Your task to perform on an android device: Open settings on Google Maps Image 0: 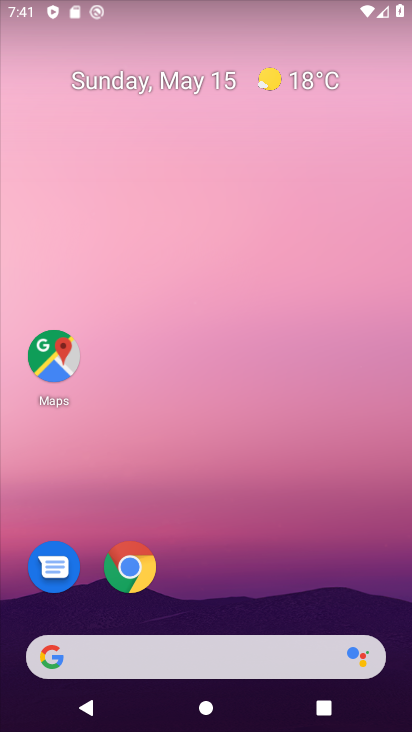
Step 0: click (44, 359)
Your task to perform on an android device: Open settings on Google Maps Image 1: 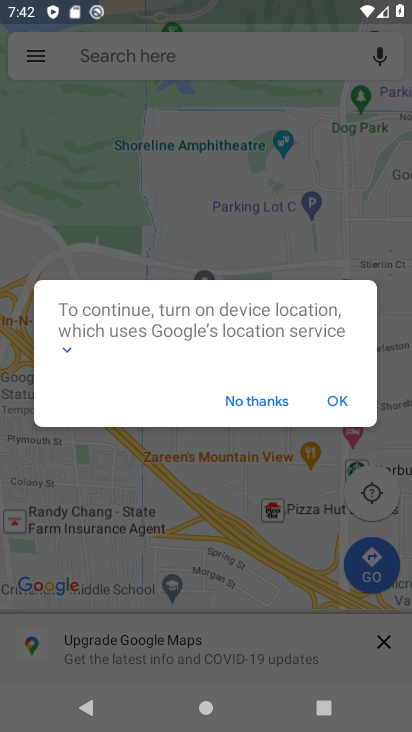
Step 1: click (246, 404)
Your task to perform on an android device: Open settings on Google Maps Image 2: 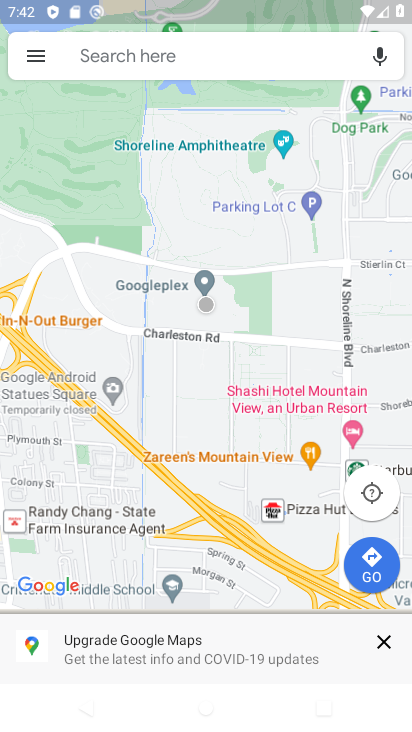
Step 2: click (170, 56)
Your task to perform on an android device: Open settings on Google Maps Image 3: 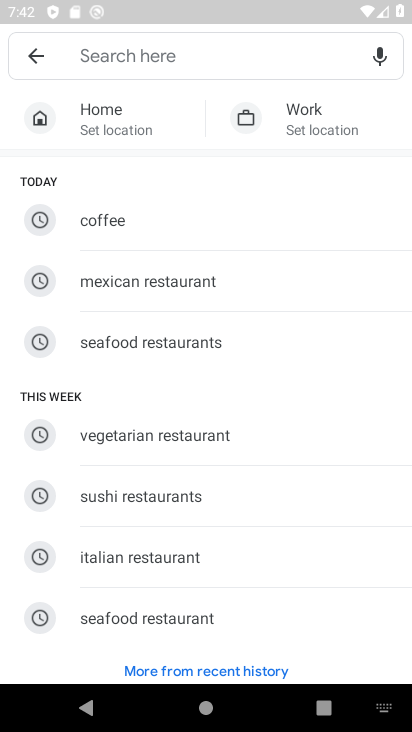
Step 3: click (38, 54)
Your task to perform on an android device: Open settings on Google Maps Image 4: 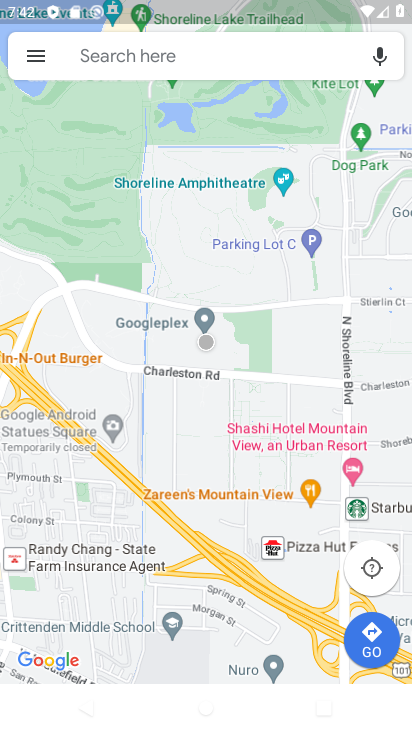
Step 4: click (38, 54)
Your task to perform on an android device: Open settings on Google Maps Image 5: 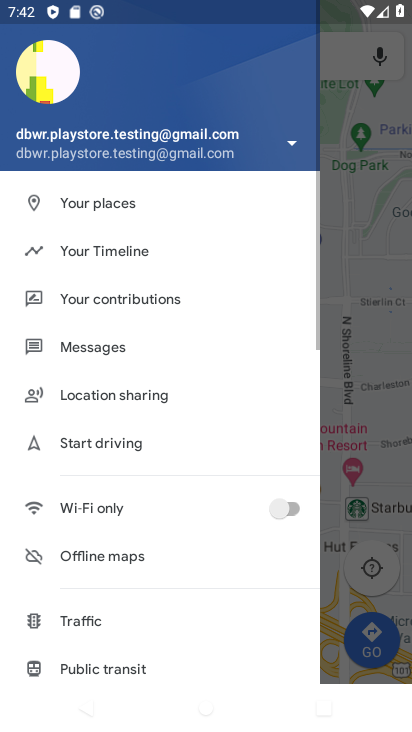
Step 5: drag from (171, 669) to (245, 29)
Your task to perform on an android device: Open settings on Google Maps Image 6: 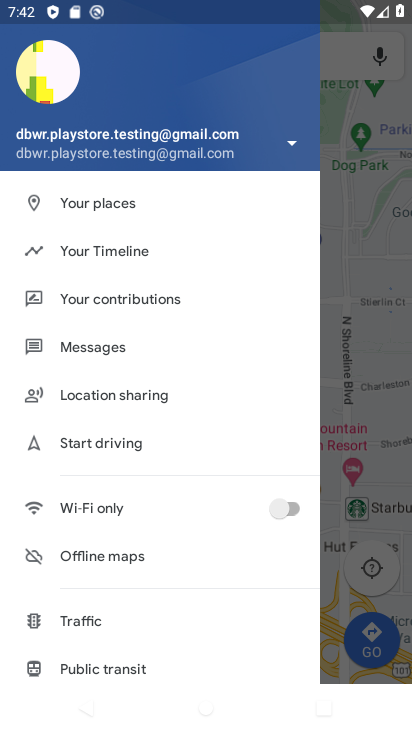
Step 6: drag from (143, 627) to (191, 57)
Your task to perform on an android device: Open settings on Google Maps Image 7: 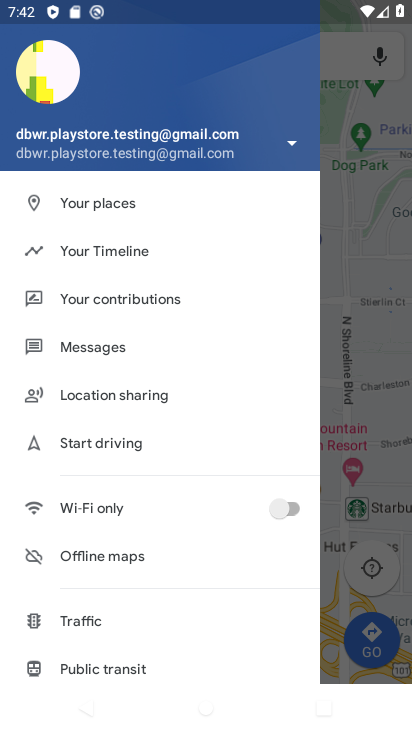
Step 7: drag from (119, 639) to (246, 62)
Your task to perform on an android device: Open settings on Google Maps Image 8: 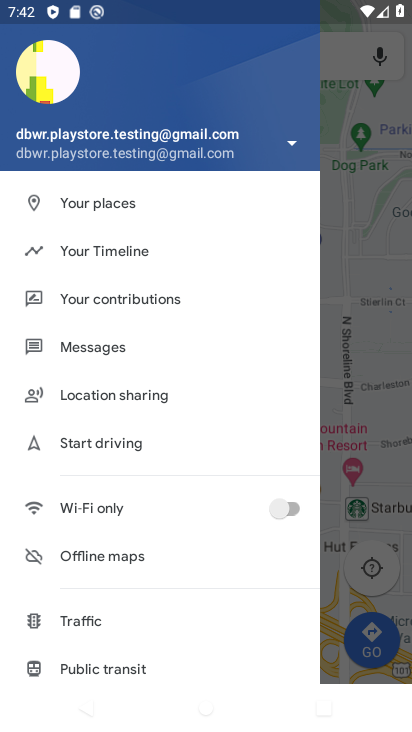
Step 8: drag from (146, 644) to (188, 20)
Your task to perform on an android device: Open settings on Google Maps Image 9: 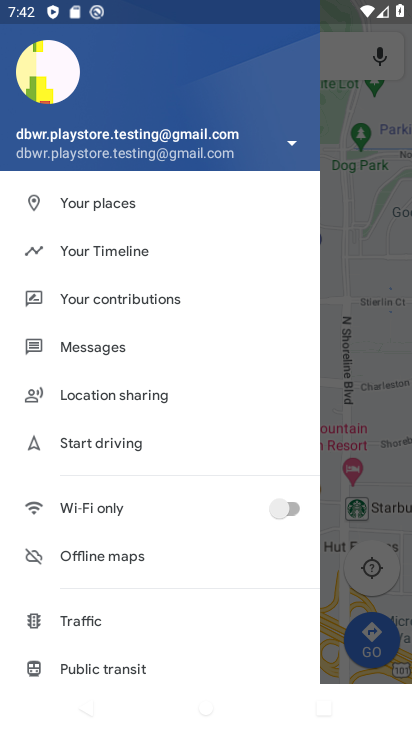
Step 9: drag from (85, 623) to (314, 25)
Your task to perform on an android device: Open settings on Google Maps Image 10: 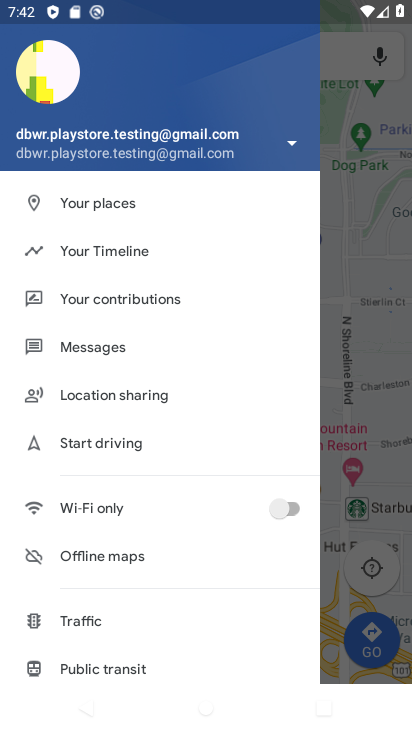
Step 10: drag from (171, 631) to (199, 13)
Your task to perform on an android device: Open settings on Google Maps Image 11: 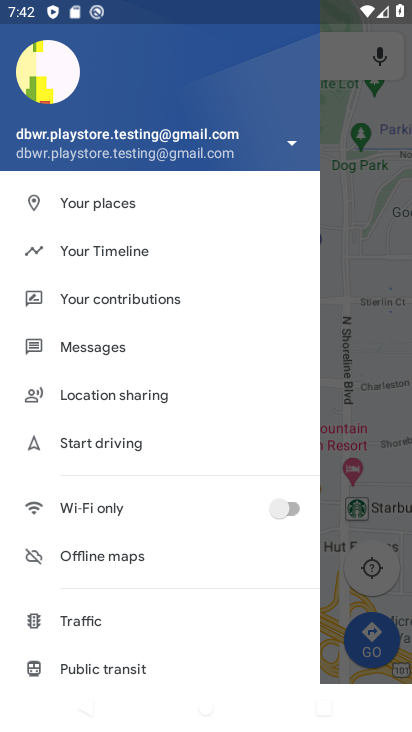
Step 11: drag from (99, 610) to (179, 22)
Your task to perform on an android device: Open settings on Google Maps Image 12: 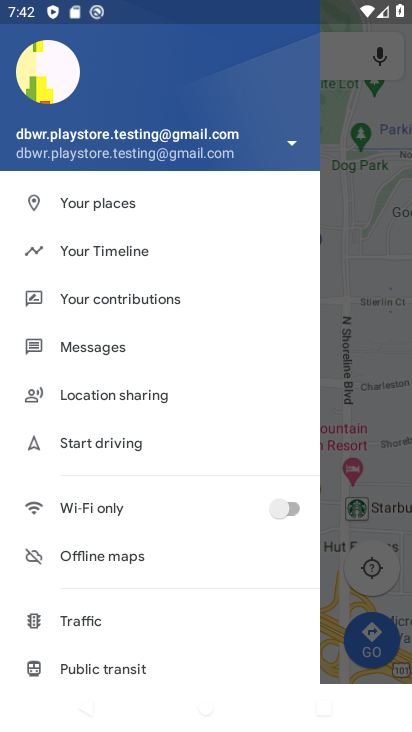
Step 12: drag from (161, 633) to (217, 29)
Your task to perform on an android device: Open settings on Google Maps Image 13: 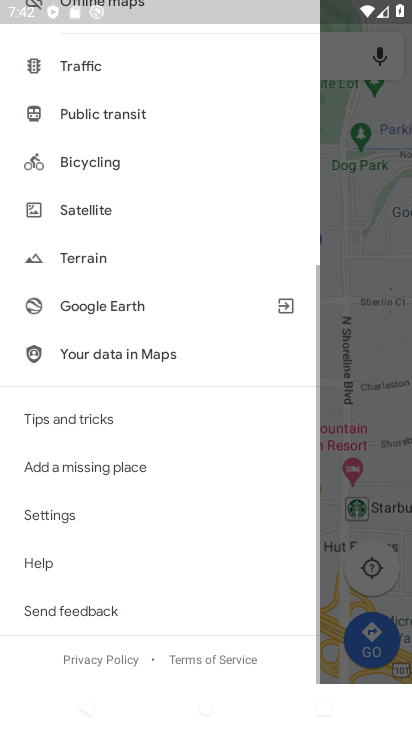
Step 13: click (23, 516)
Your task to perform on an android device: Open settings on Google Maps Image 14: 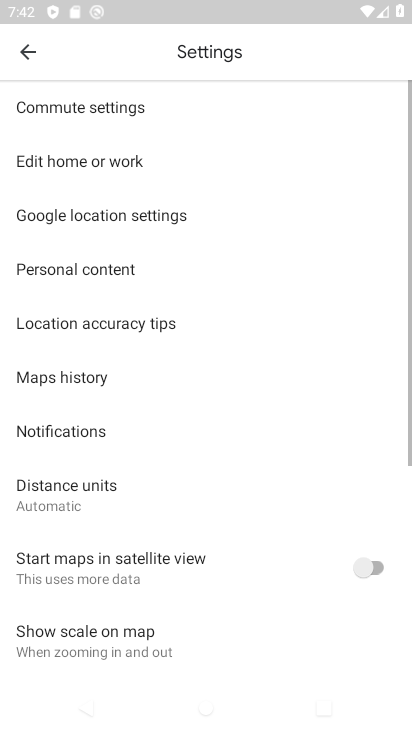
Step 14: task complete